Your task to perform on an android device: open chrome and create a bookmark for the current page Image 0: 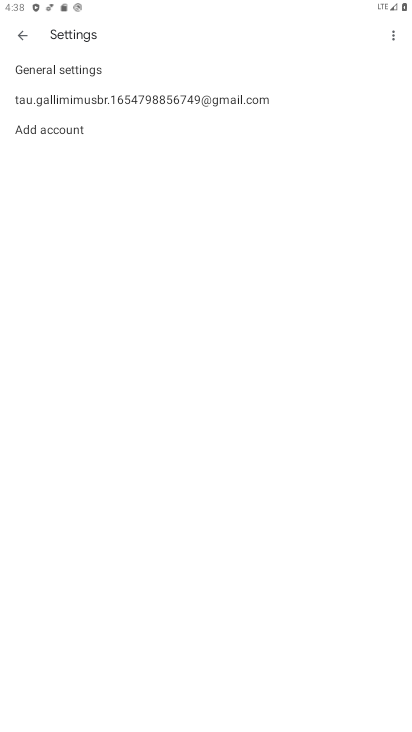
Step 0: press home button
Your task to perform on an android device: open chrome and create a bookmark for the current page Image 1: 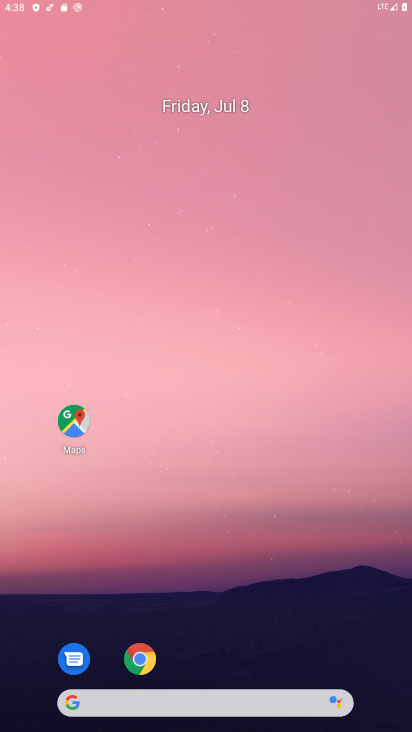
Step 1: drag from (221, 622) to (177, 95)
Your task to perform on an android device: open chrome and create a bookmark for the current page Image 2: 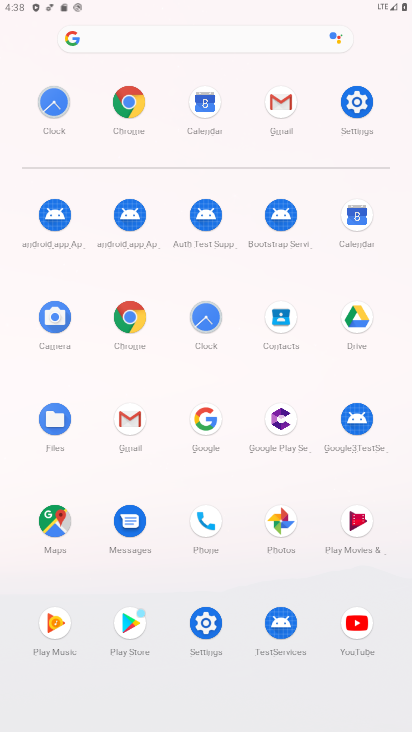
Step 2: click (140, 115)
Your task to perform on an android device: open chrome and create a bookmark for the current page Image 3: 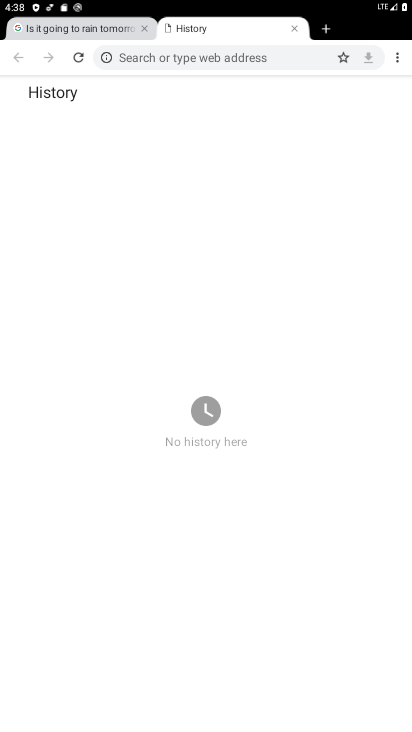
Step 3: click (340, 63)
Your task to perform on an android device: open chrome and create a bookmark for the current page Image 4: 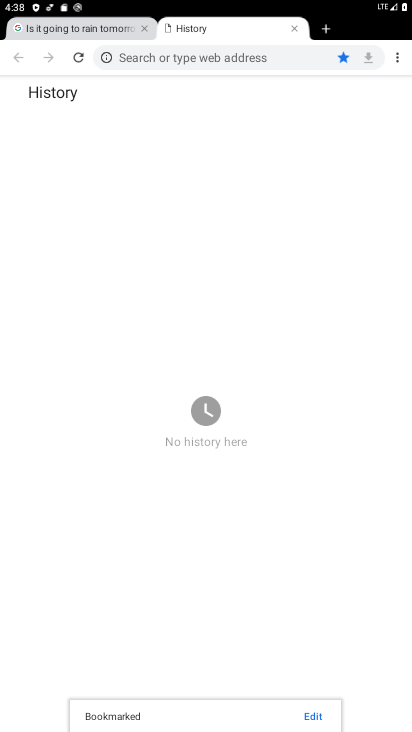
Step 4: task complete